Your task to perform on an android device: see creations saved in the google photos Image 0: 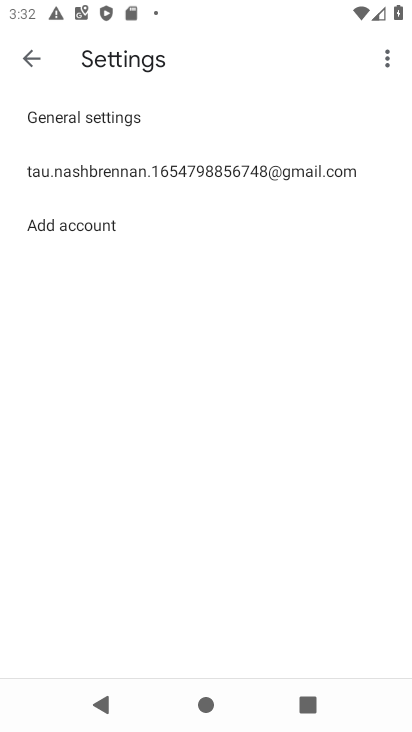
Step 0: press home button
Your task to perform on an android device: see creations saved in the google photos Image 1: 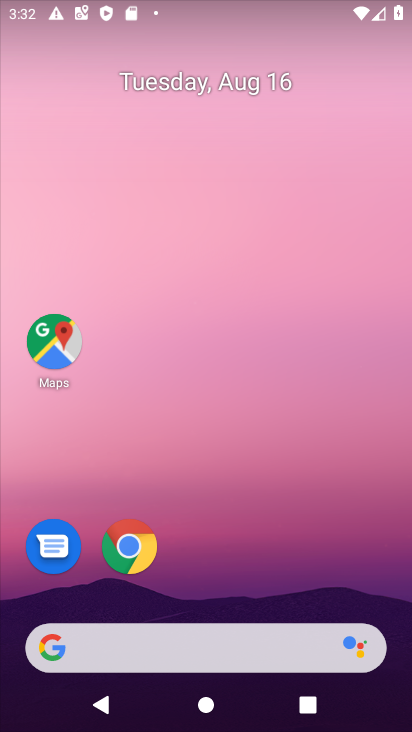
Step 1: drag from (321, 604) to (340, 177)
Your task to perform on an android device: see creations saved in the google photos Image 2: 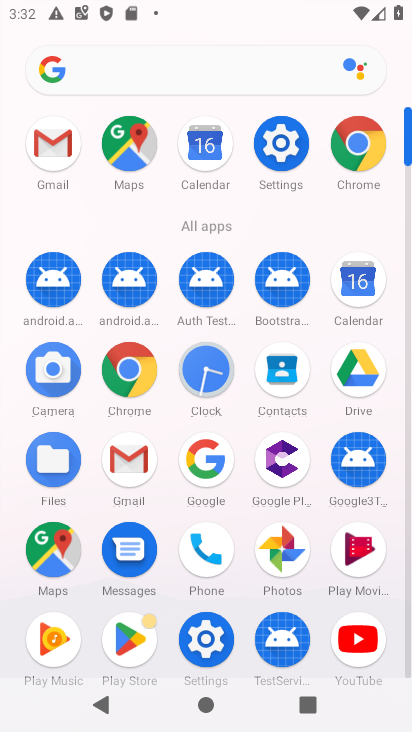
Step 2: click (283, 553)
Your task to perform on an android device: see creations saved in the google photos Image 3: 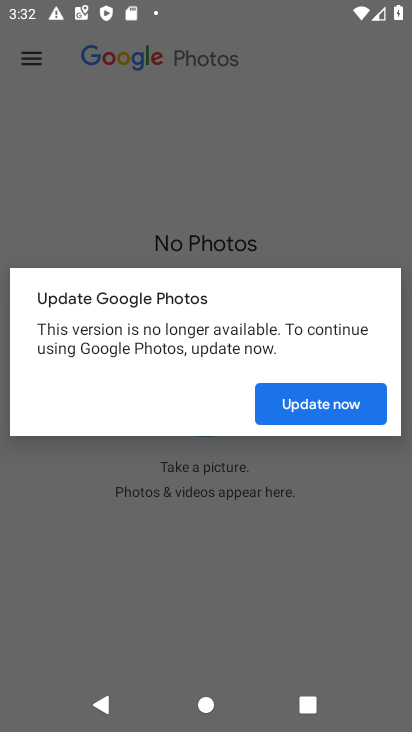
Step 3: click (353, 400)
Your task to perform on an android device: see creations saved in the google photos Image 4: 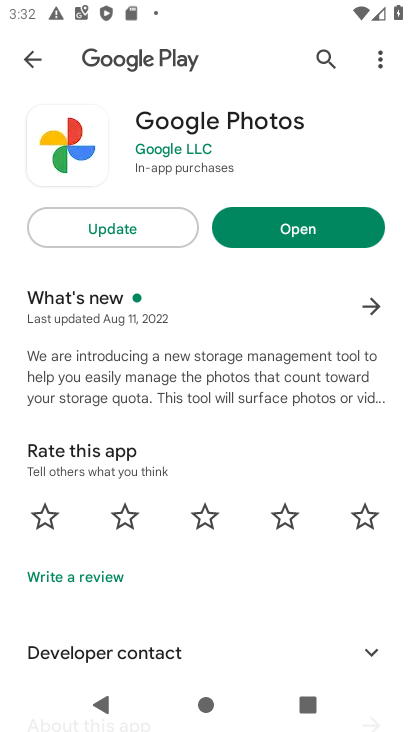
Step 4: click (148, 227)
Your task to perform on an android device: see creations saved in the google photos Image 5: 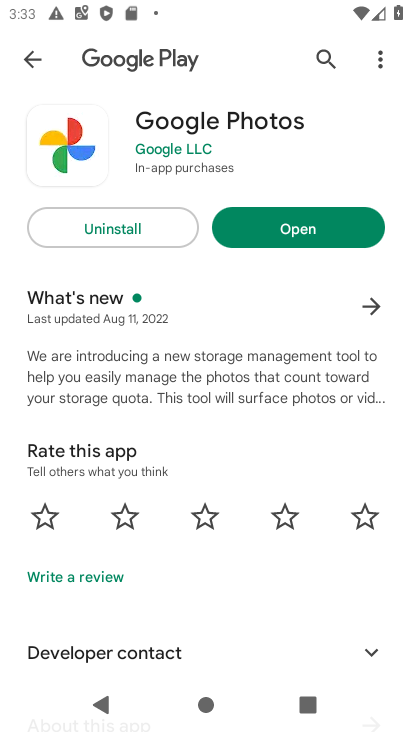
Step 5: click (352, 227)
Your task to perform on an android device: see creations saved in the google photos Image 6: 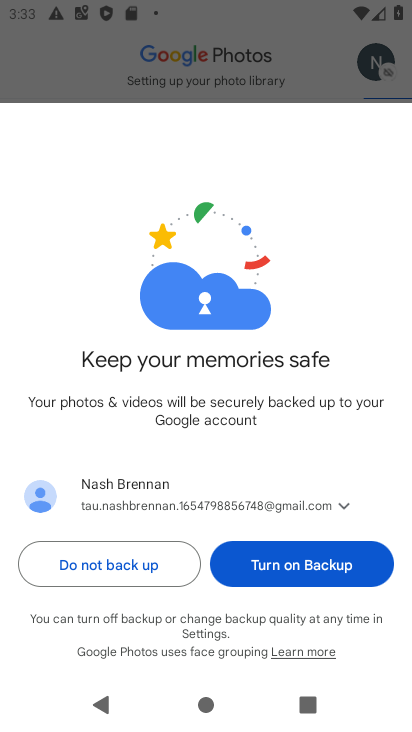
Step 6: click (134, 557)
Your task to perform on an android device: see creations saved in the google photos Image 7: 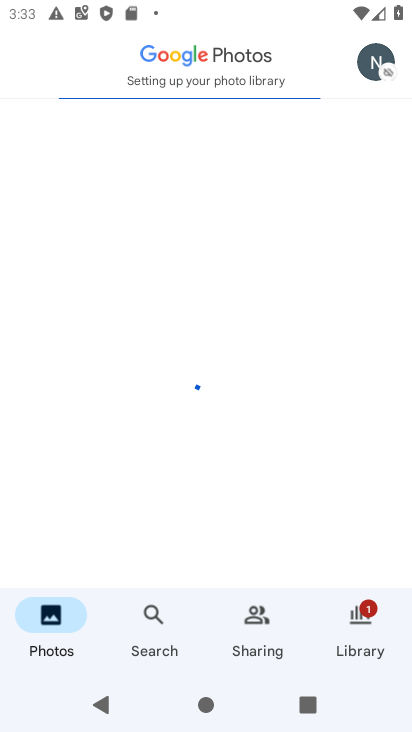
Step 7: click (145, 610)
Your task to perform on an android device: see creations saved in the google photos Image 8: 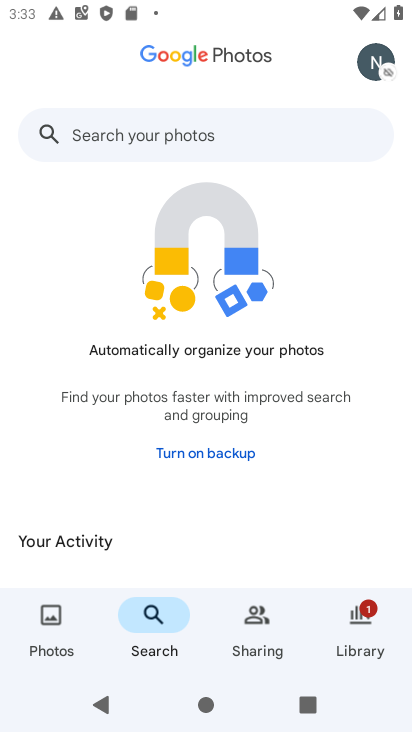
Step 8: drag from (319, 556) to (320, 366)
Your task to perform on an android device: see creations saved in the google photos Image 9: 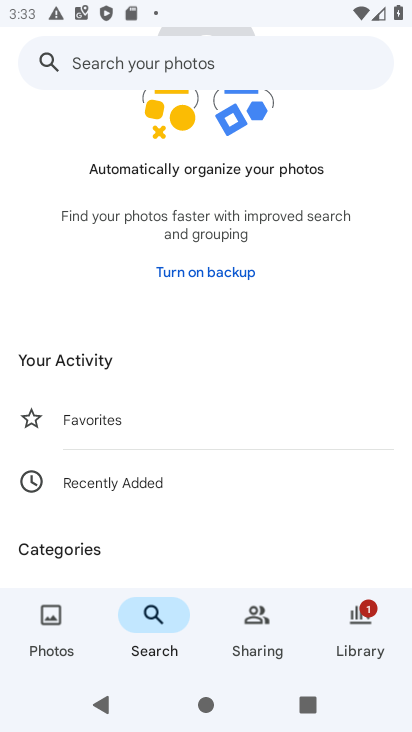
Step 9: drag from (291, 522) to (293, 294)
Your task to perform on an android device: see creations saved in the google photos Image 10: 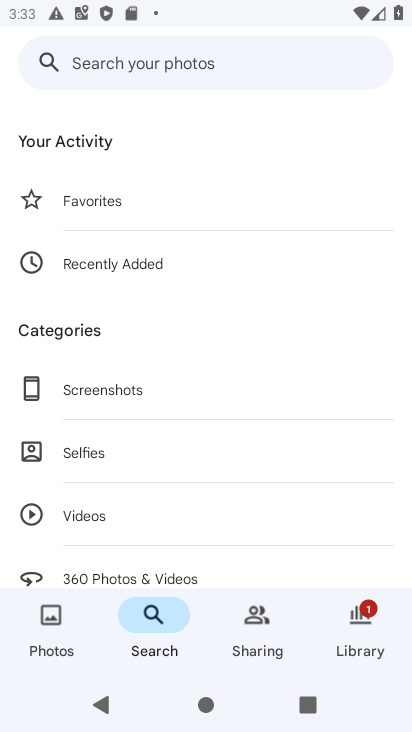
Step 10: drag from (249, 525) to (249, 280)
Your task to perform on an android device: see creations saved in the google photos Image 11: 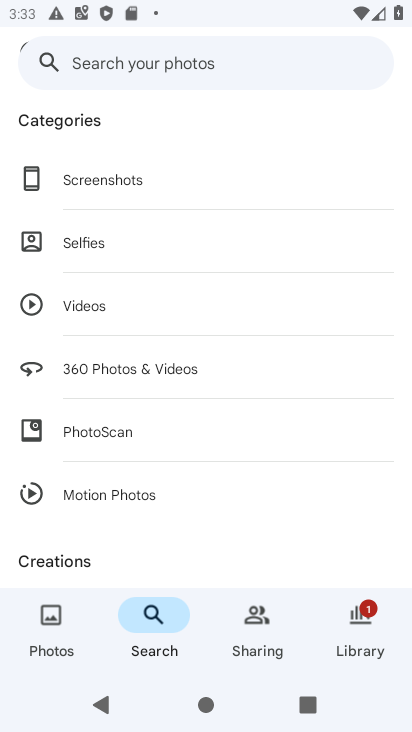
Step 11: drag from (227, 524) to (237, 300)
Your task to perform on an android device: see creations saved in the google photos Image 12: 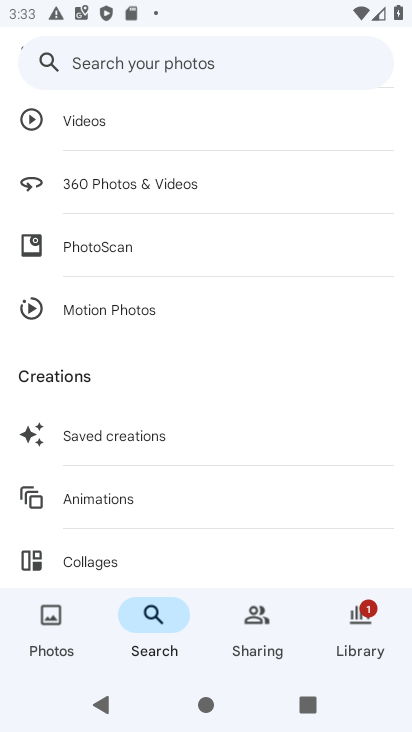
Step 12: click (165, 435)
Your task to perform on an android device: see creations saved in the google photos Image 13: 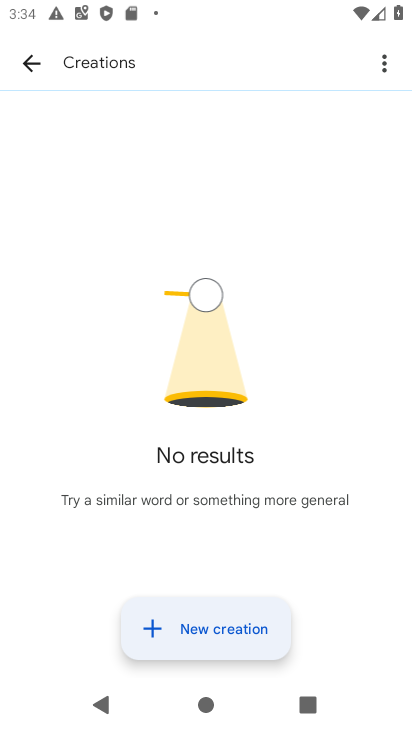
Step 13: task complete